Your task to perform on an android device: toggle sleep mode Image 0: 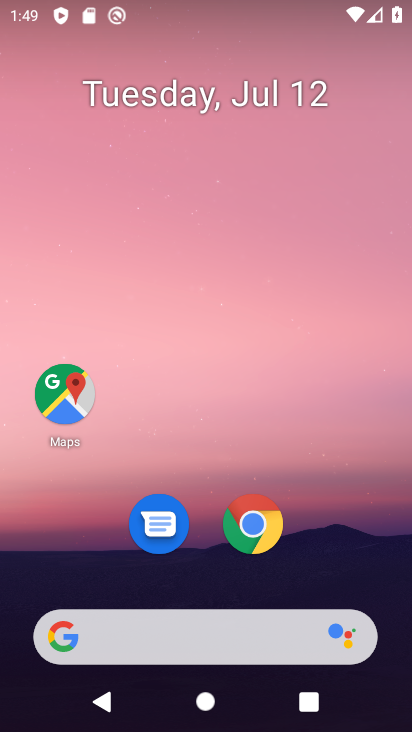
Step 0: drag from (309, 570) to (321, 78)
Your task to perform on an android device: toggle sleep mode Image 1: 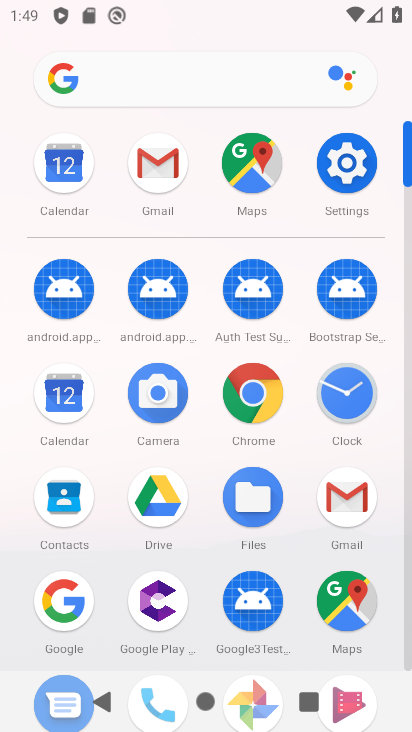
Step 1: click (355, 163)
Your task to perform on an android device: toggle sleep mode Image 2: 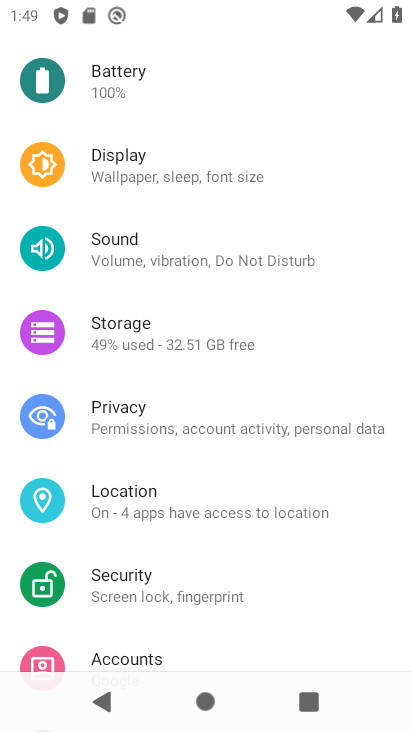
Step 2: click (181, 170)
Your task to perform on an android device: toggle sleep mode Image 3: 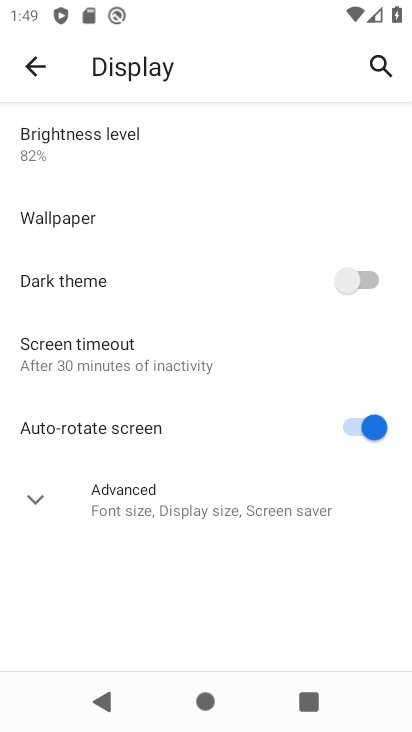
Step 3: click (36, 498)
Your task to perform on an android device: toggle sleep mode Image 4: 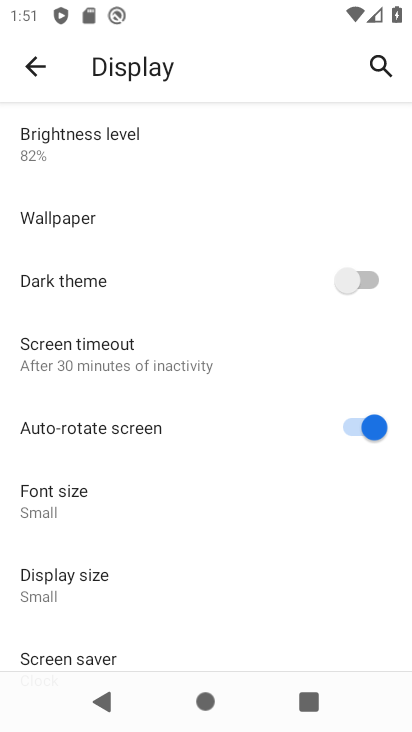
Step 4: task complete